Your task to perform on an android device: Open display settings Image 0: 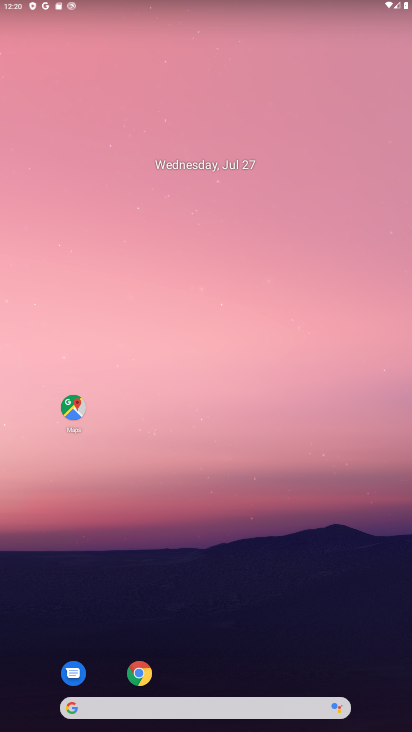
Step 0: drag from (225, 692) to (184, 2)
Your task to perform on an android device: Open display settings Image 1: 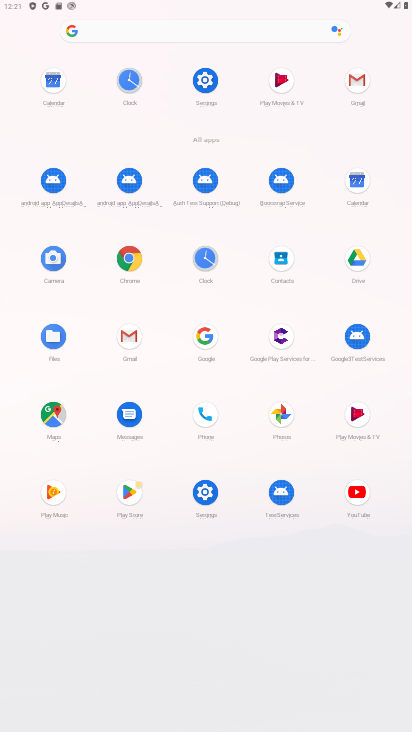
Step 1: click (195, 81)
Your task to perform on an android device: Open display settings Image 2: 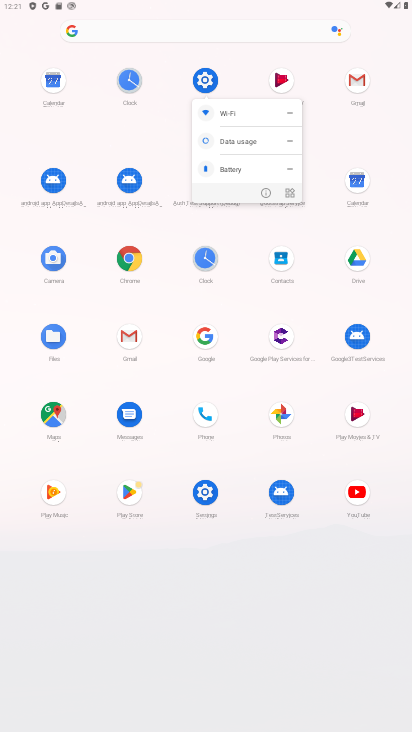
Step 2: click (200, 79)
Your task to perform on an android device: Open display settings Image 3: 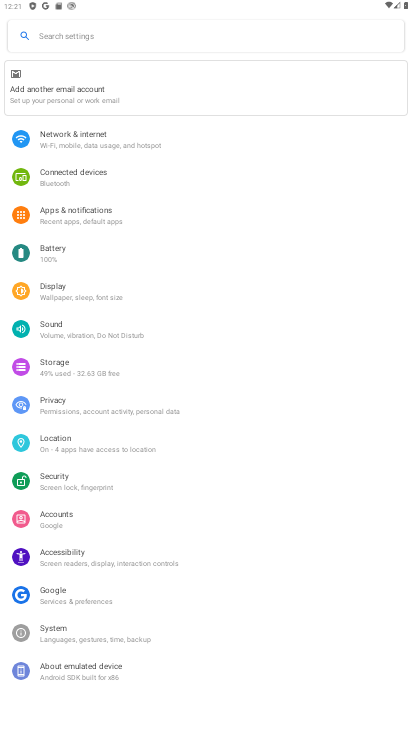
Step 3: click (51, 296)
Your task to perform on an android device: Open display settings Image 4: 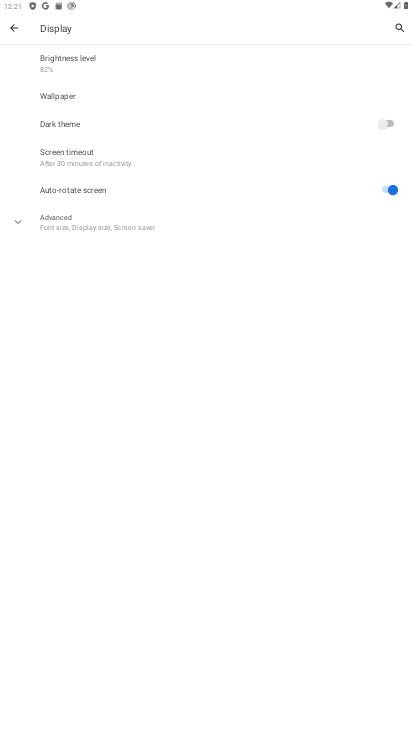
Step 4: task complete